Your task to perform on an android device: change the clock style Image 0: 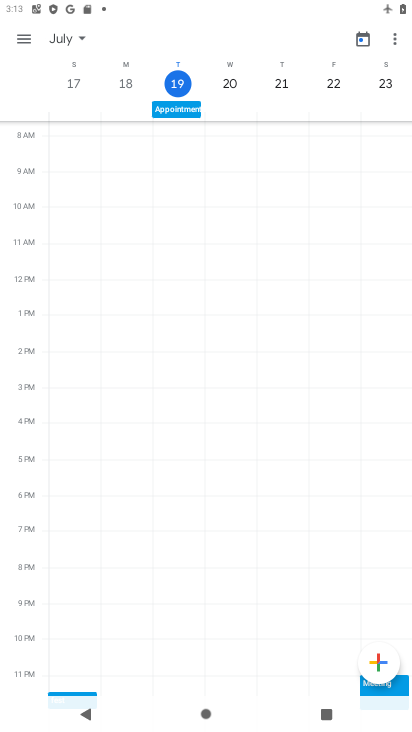
Step 0: press home button
Your task to perform on an android device: change the clock style Image 1: 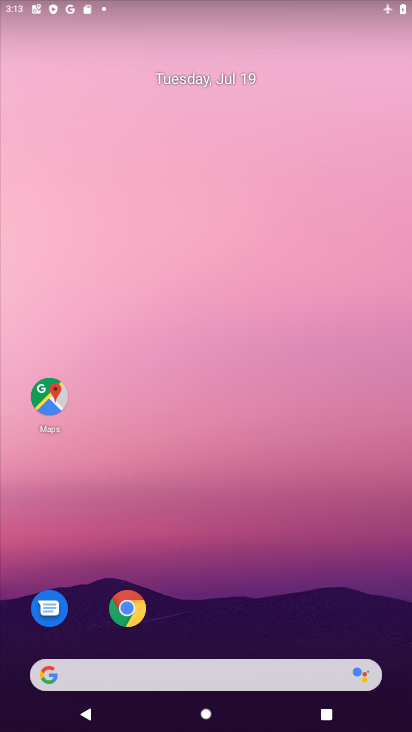
Step 1: drag from (260, 613) to (242, 131)
Your task to perform on an android device: change the clock style Image 2: 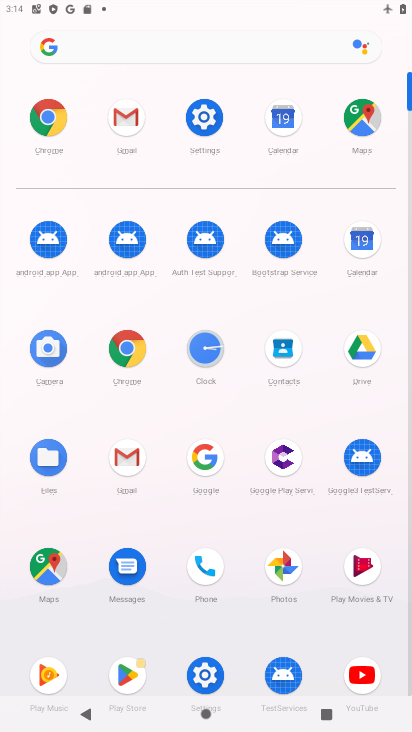
Step 2: click (209, 338)
Your task to perform on an android device: change the clock style Image 3: 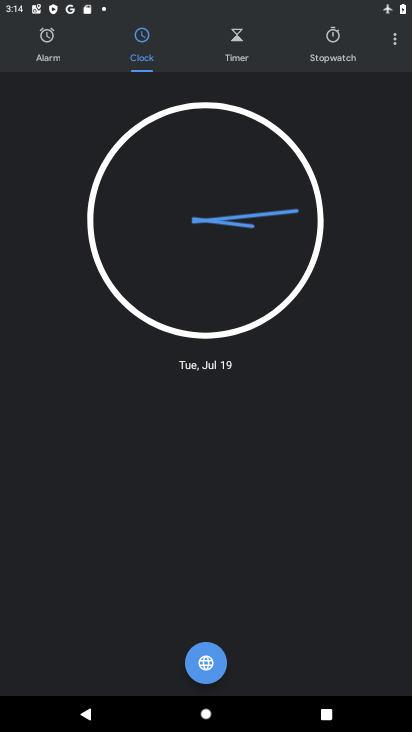
Step 3: click (400, 37)
Your task to perform on an android device: change the clock style Image 4: 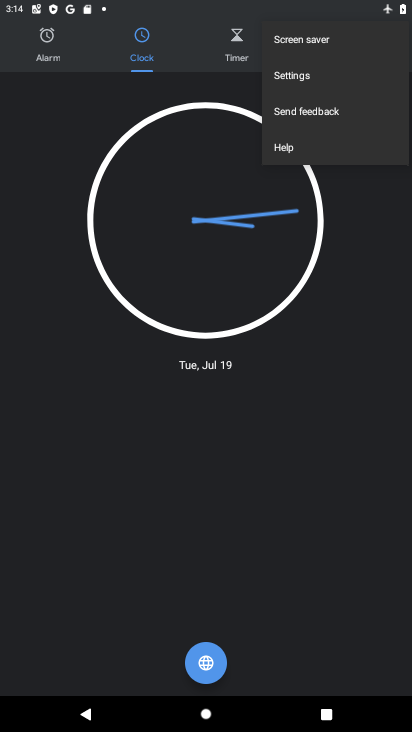
Step 4: click (323, 74)
Your task to perform on an android device: change the clock style Image 5: 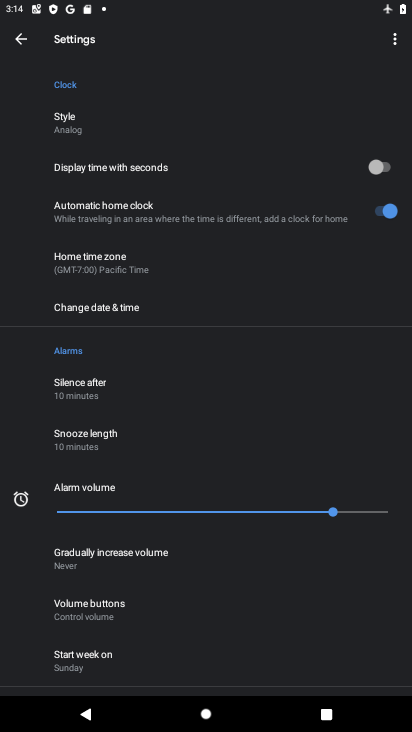
Step 5: click (57, 123)
Your task to perform on an android device: change the clock style Image 6: 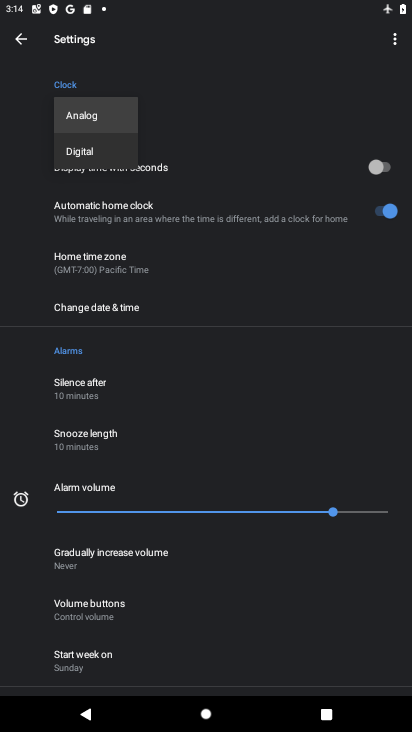
Step 6: click (101, 153)
Your task to perform on an android device: change the clock style Image 7: 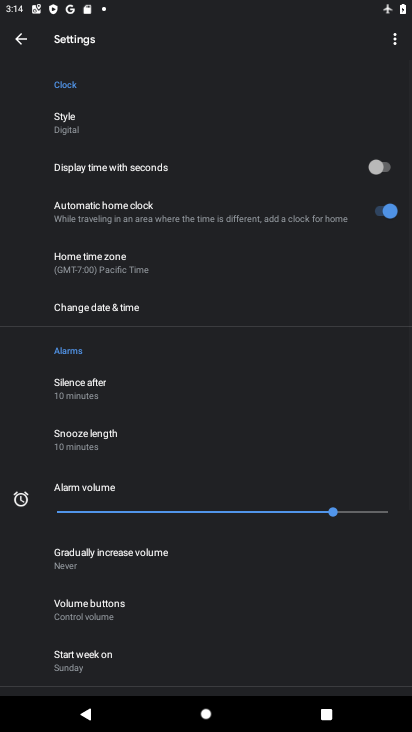
Step 7: task complete